Your task to perform on an android device: toggle show notifications on the lock screen Image 0: 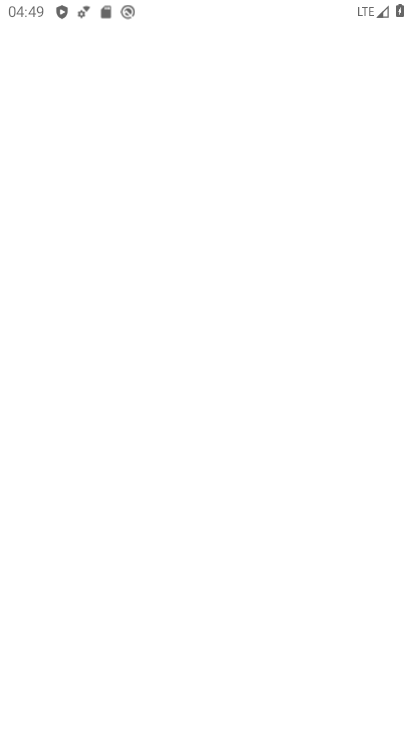
Step 0: click (125, 614)
Your task to perform on an android device: toggle show notifications on the lock screen Image 1: 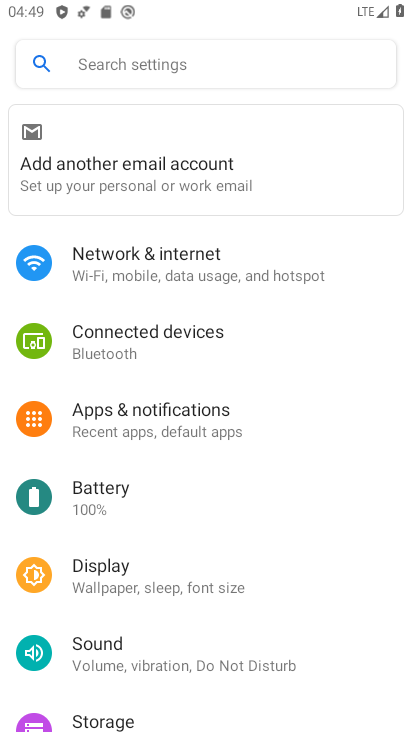
Step 1: press back button
Your task to perform on an android device: toggle show notifications on the lock screen Image 2: 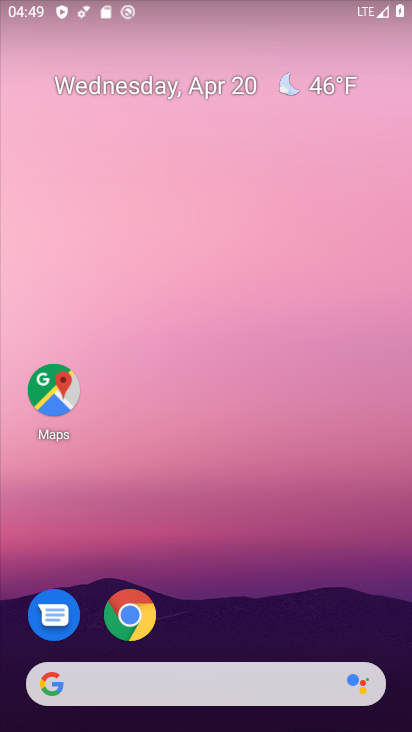
Step 2: drag from (236, 594) to (295, 160)
Your task to perform on an android device: toggle show notifications on the lock screen Image 3: 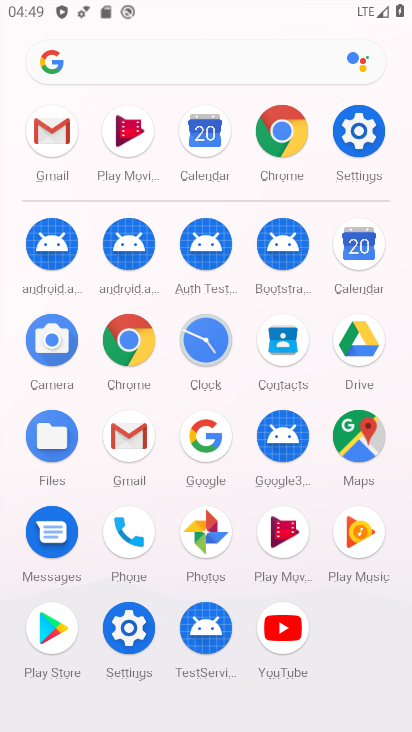
Step 3: click (366, 125)
Your task to perform on an android device: toggle show notifications on the lock screen Image 4: 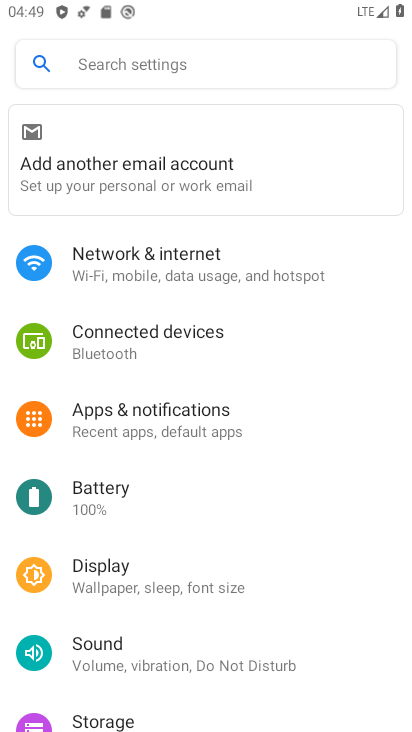
Step 4: click (233, 416)
Your task to perform on an android device: toggle show notifications on the lock screen Image 5: 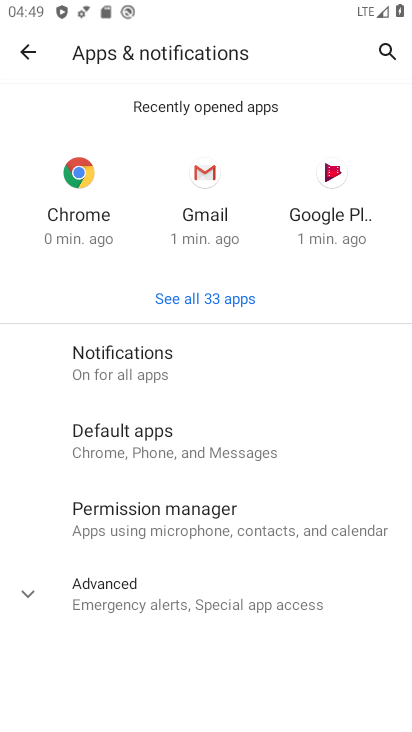
Step 5: click (200, 351)
Your task to perform on an android device: toggle show notifications on the lock screen Image 6: 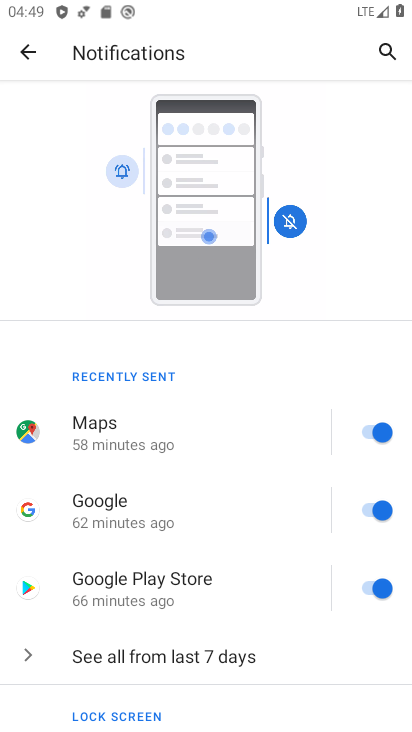
Step 6: drag from (152, 636) to (269, 136)
Your task to perform on an android device: toggle show notifications on the lock screen Image 7: 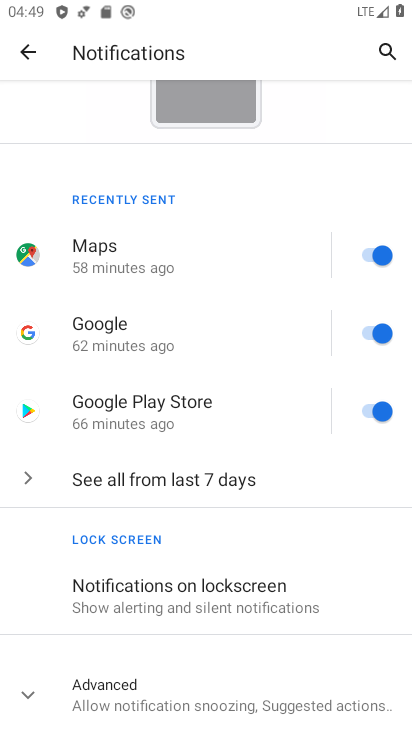
Step 7: click (189, 604)
Your task to perform on an android device: toggle show notifications on the lock screen Image 8: 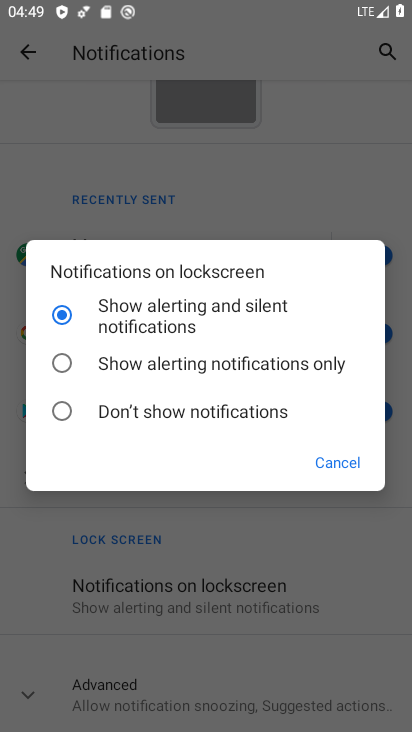
Step 8: click (65, 357)
Your task to perform on an android device: toggle show notifications on the lock screen Image 9: 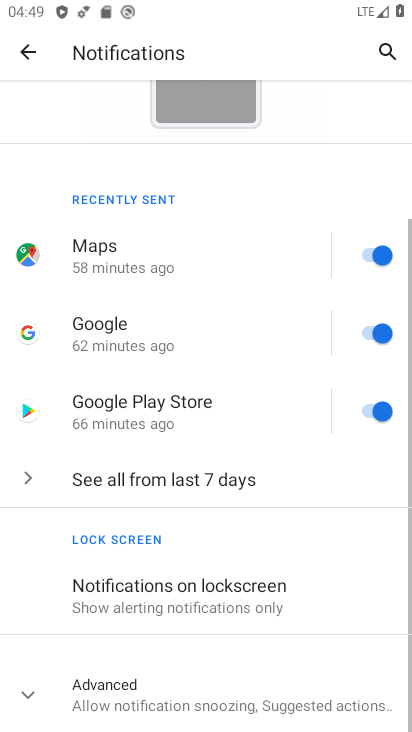
Step 9: task complete